Your task to perform on an android device: Go to sound settings Image 0: 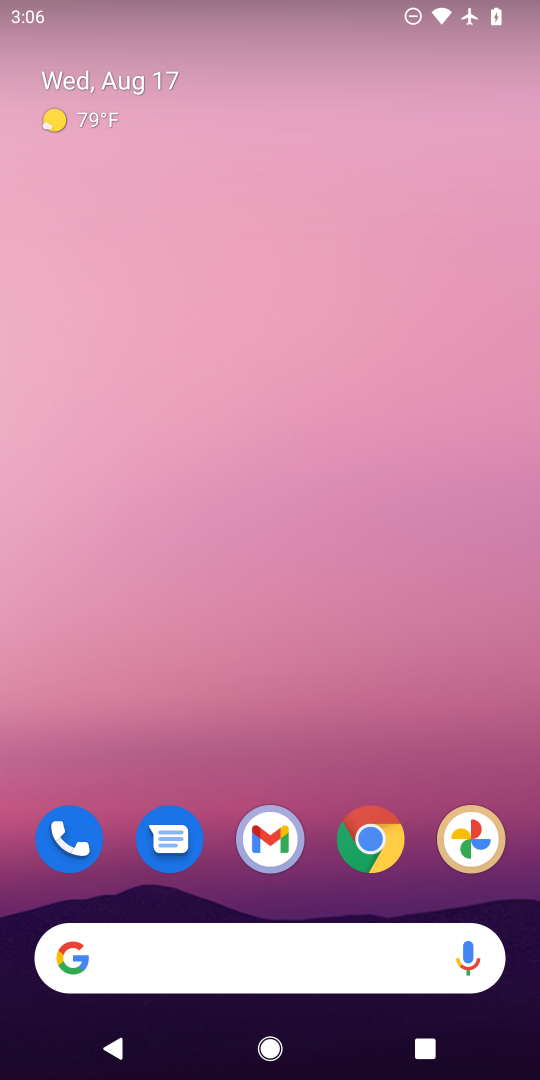
Step 0: drag from (329, 828) to (233, 14)
Your task to perform on an android device: Go to sound settings Image 1: 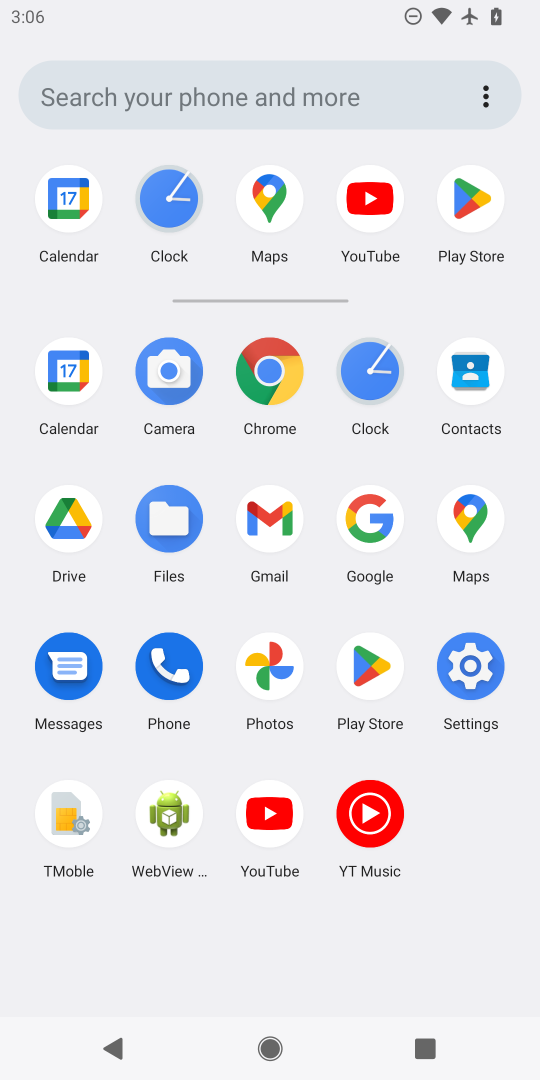
Step 1: click (474, 658)
Your task to perform on an android device: Go to sound settings Image 2: 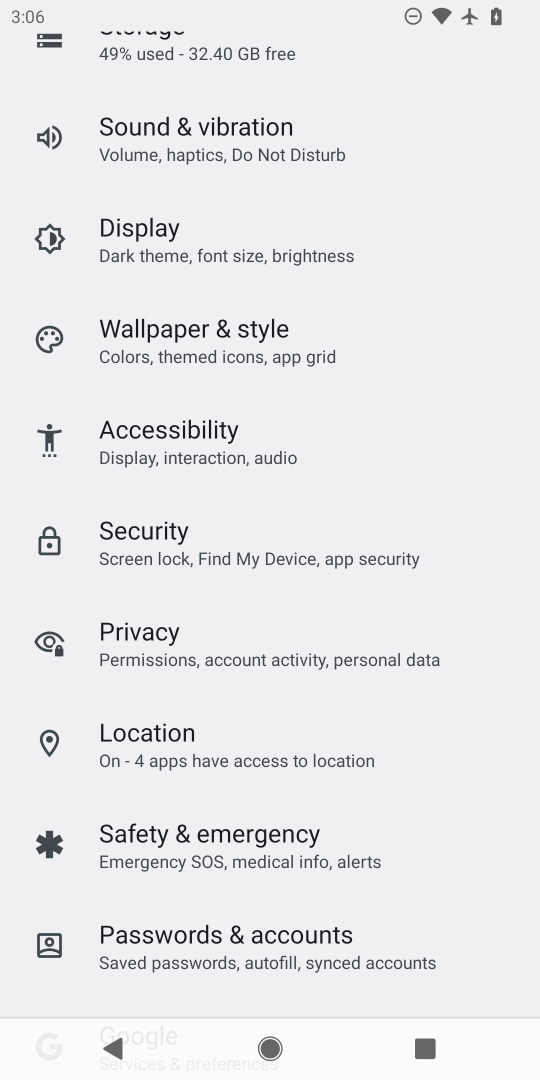
Step 2: drag from (130, 866) to (130, 342)
Your task to perform on an android device: Go to sound settings Image 3: 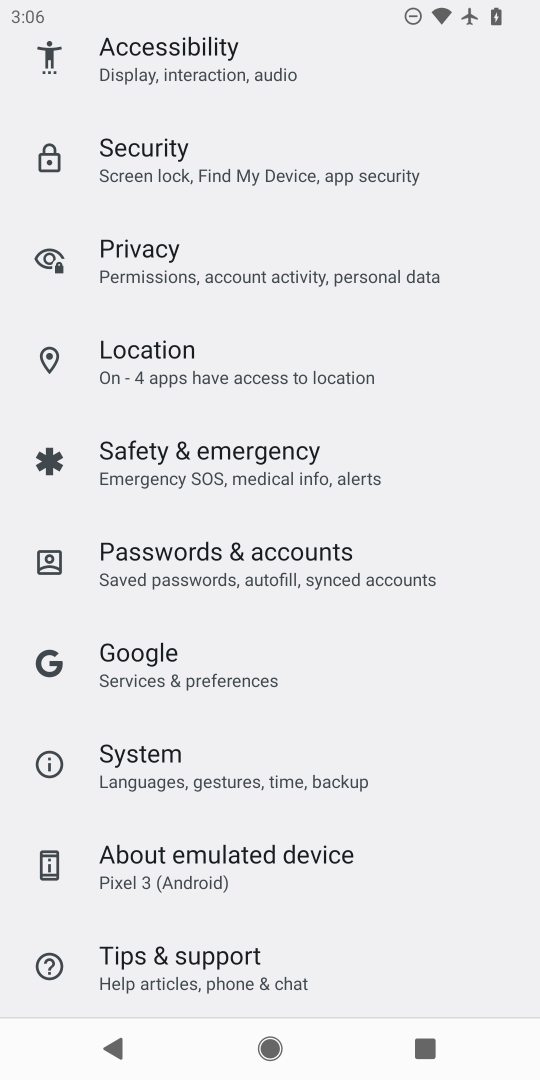
Step 3: click (269, 125)
Your task to perform on an android device: Go to sound settings Image 4: 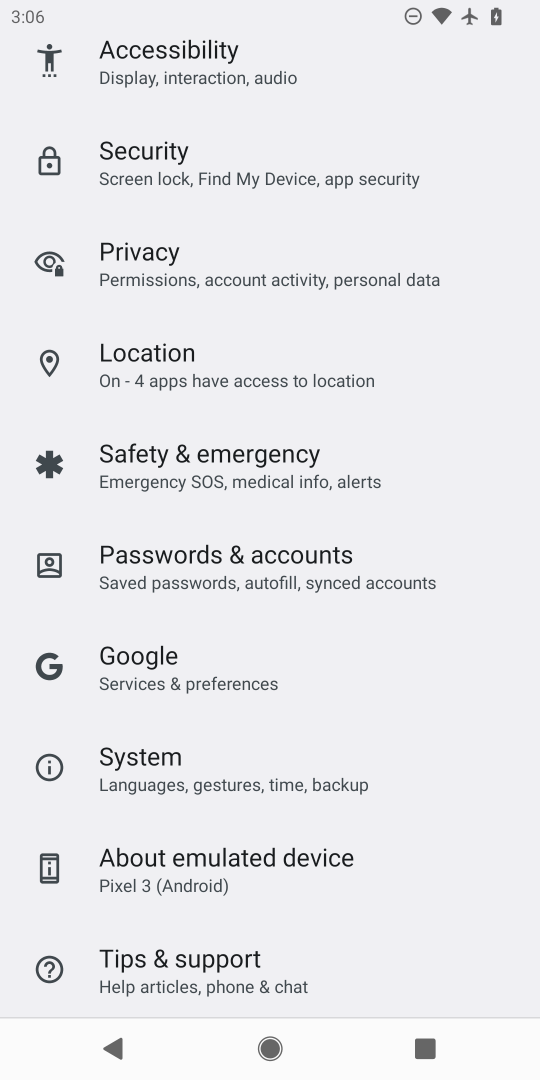
Step 4: drag from (204, 667) to (195, 727)
Your task to perform on an android device: Go to sound settings Image 5: 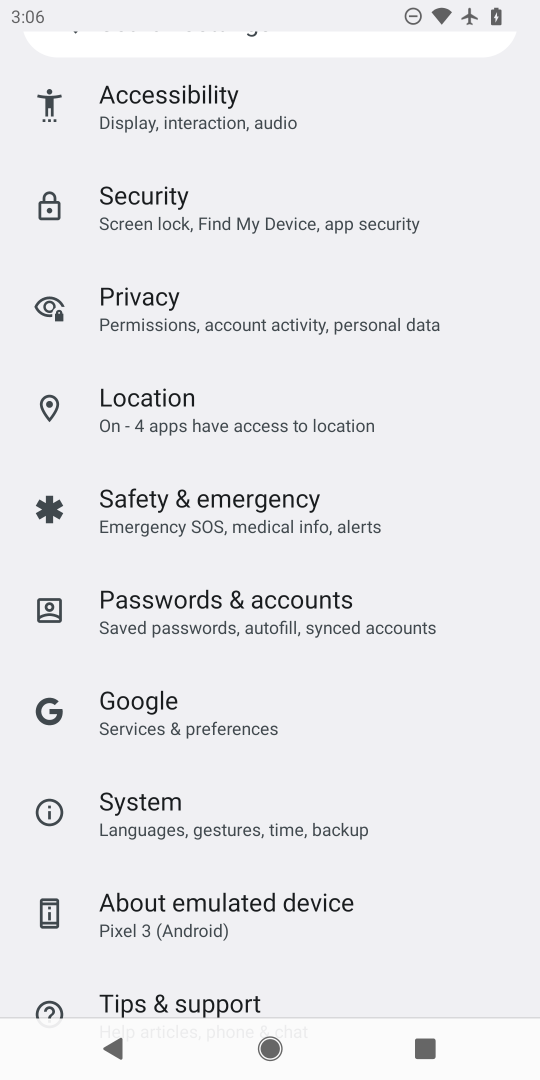
Step 5: drag from (162, 182) to (188, 816)
Your task to perform on an android device: Go to sound settings Image 6: 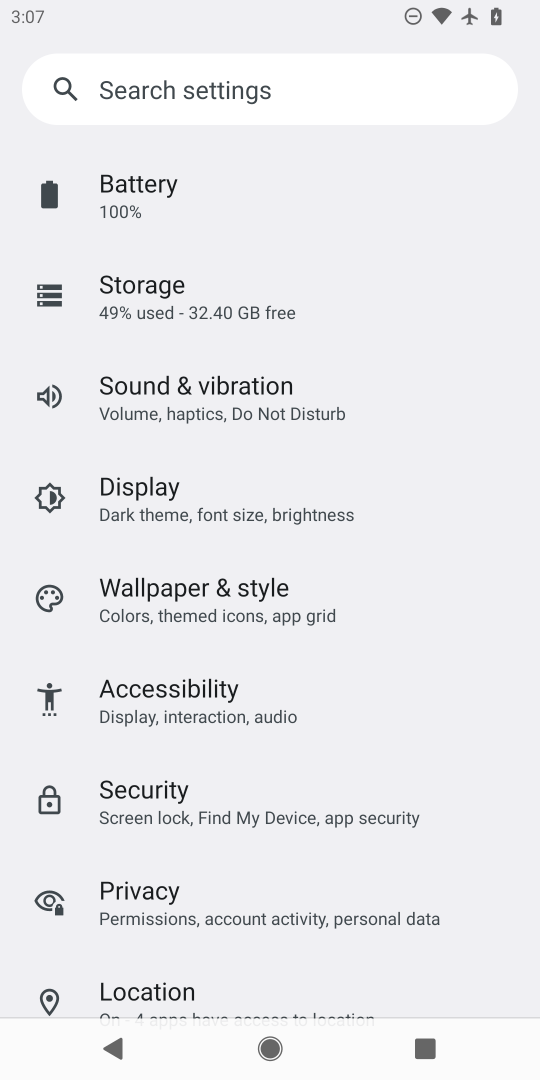
Step 6: drag from (168, 906) to (202, 426)
Your task to perform on an android device: Go to sound settings Image 7: 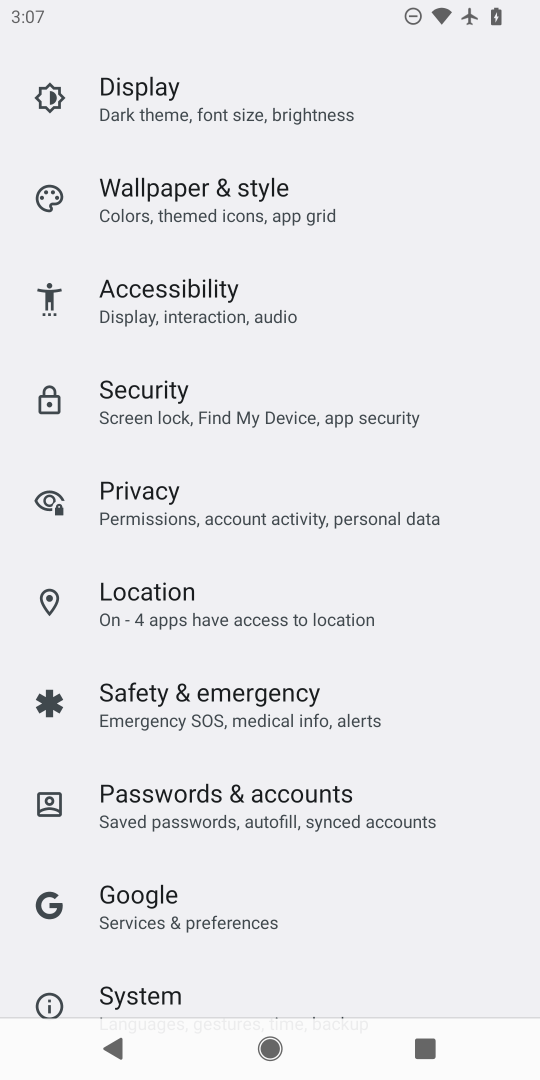
Step 7: drag from (182, 910) to (223, 379)
Your task to perform on an android device: Go to sound settings Image 8: 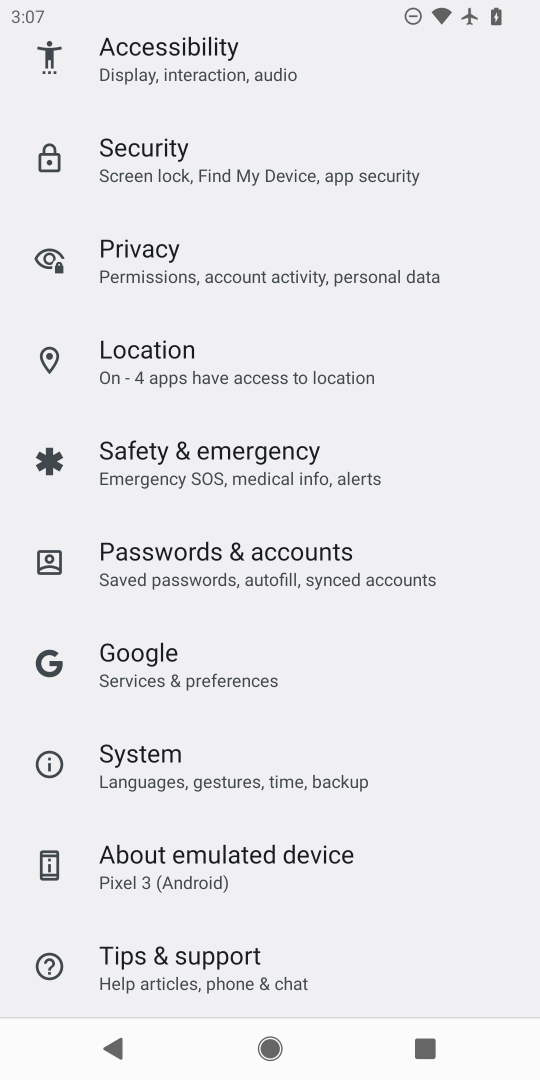
Step 8: drag from (306, 137) to (305, 202)
Your task to perform on an android device: Go to sound settings Image 9: 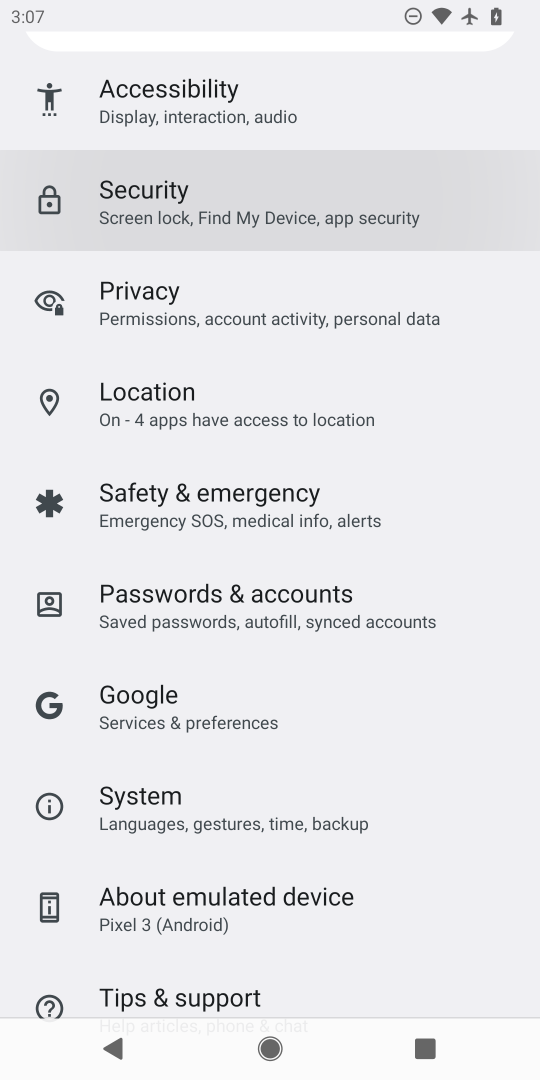
Step 9: drag from (303, 428) to (285, 910)
Your task to perform on an android device: Go to sound settings Image 10: 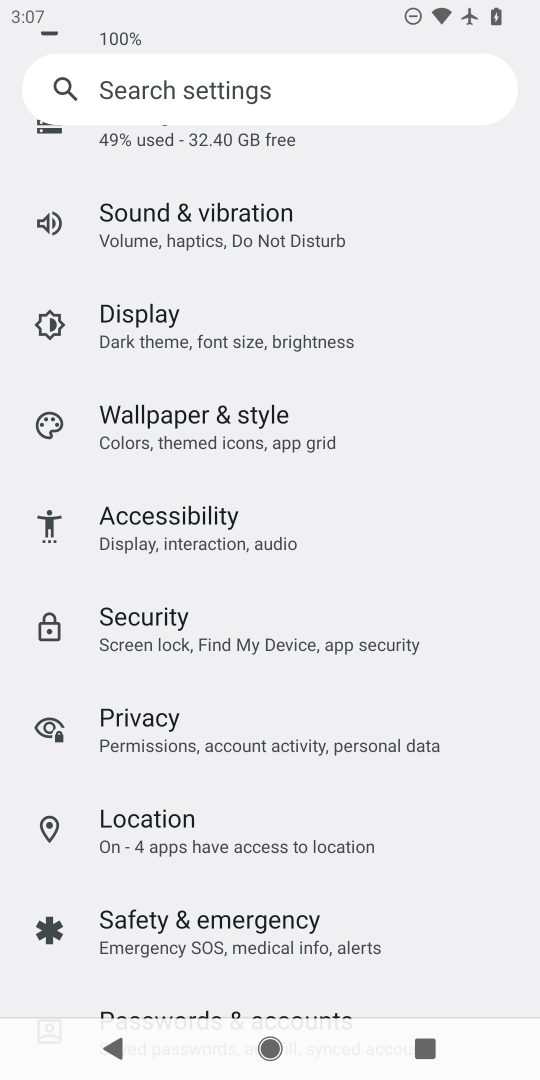
Step 10: click (159, 219)
Your task to perform on an android device: Go to sound settings Image 11: 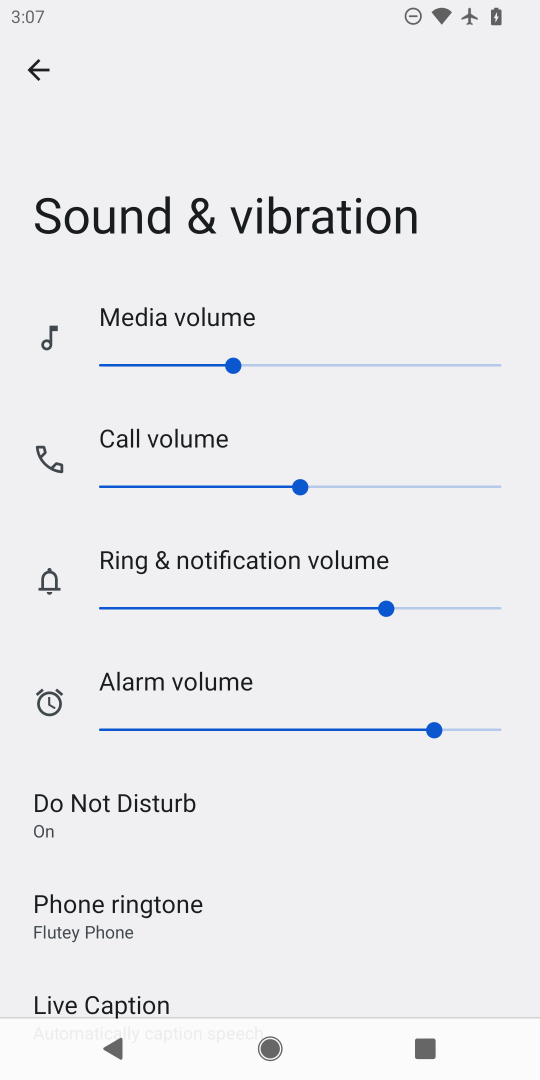
Step 11: task complete